Your task to perform on an android device: check google app version Image 0: 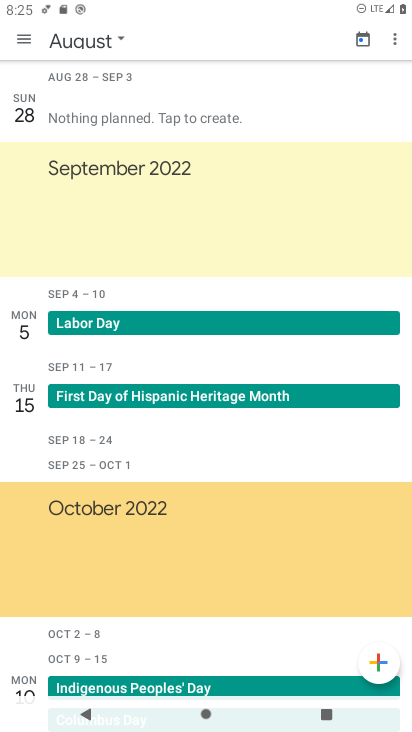
Step 0: press home button
Your task to perform on an android device: check google app version Image 1: 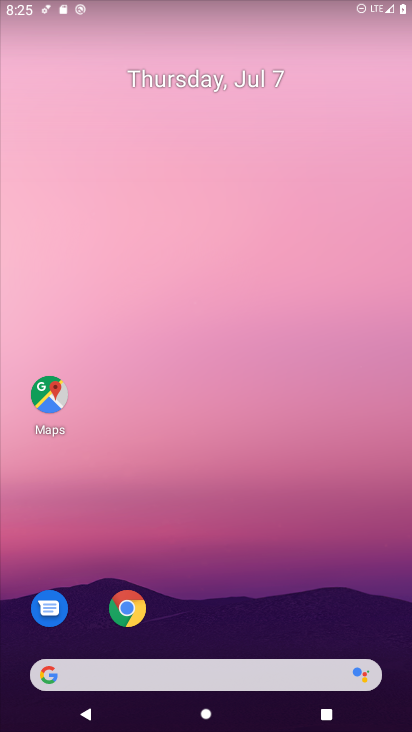
Step 1: click (128, 608)
Your task to perform on an android device: check google app version Image 2: 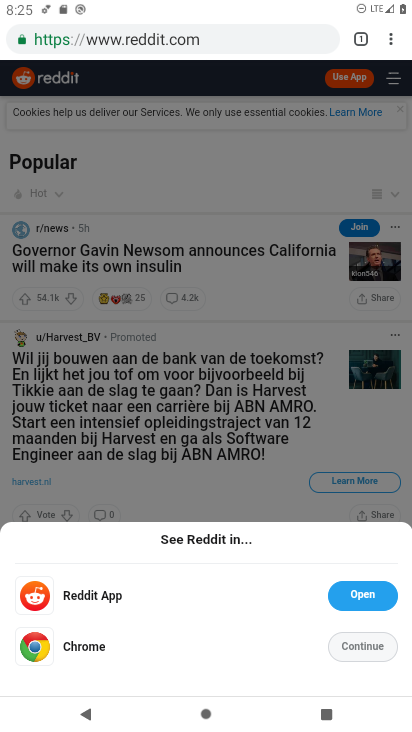
Step 2: click (391, 44)
Your task to perform on an android device: check google app version Image 3: 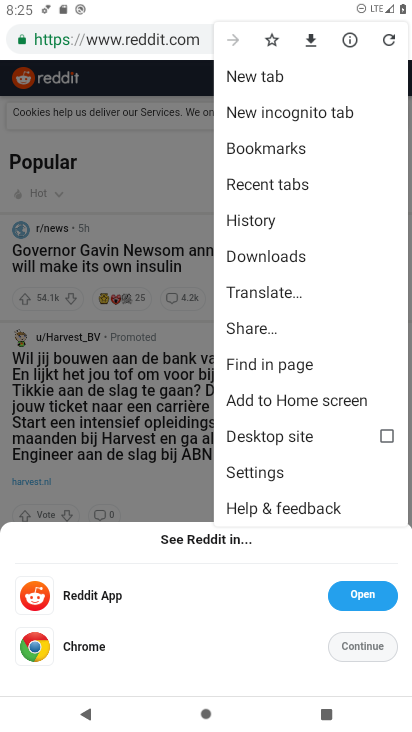
Step 3: click (261, 477)
Your task to perform on an android device: check google app version Image 4: 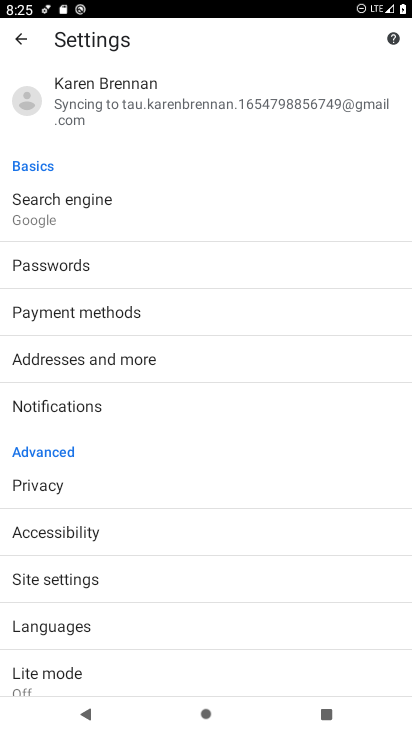
Step 4: drag from (203, 676) to (215, 327)
Your task to perform on an android device: check google app version Image 5: 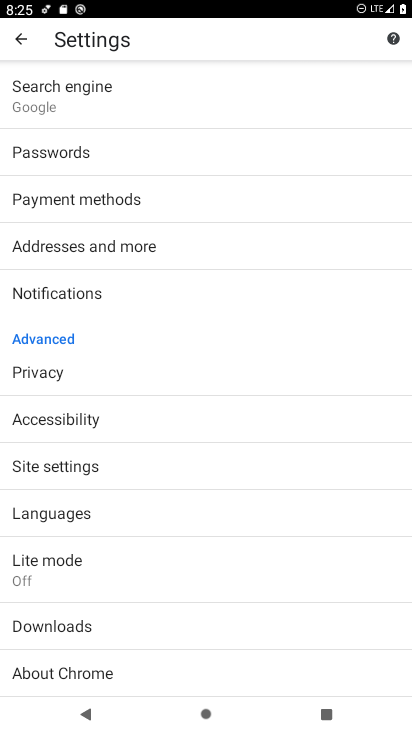
Step 5: click (64, 669)
Your task to perform on an android device: check google app version Image 6: 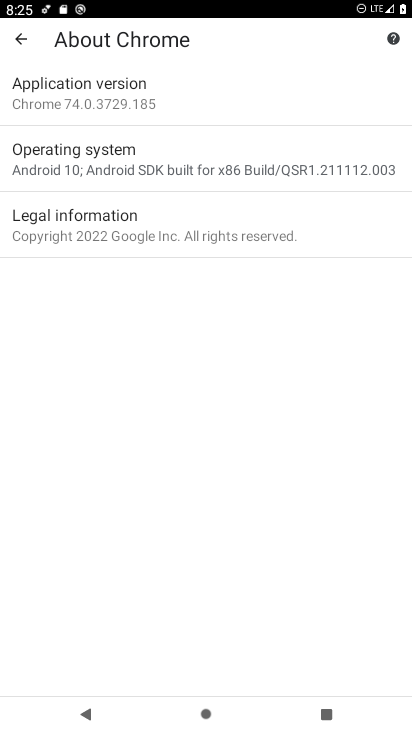
Step 6: click (41, 77)
Your task to perform on an android device: check google app version Image 7: 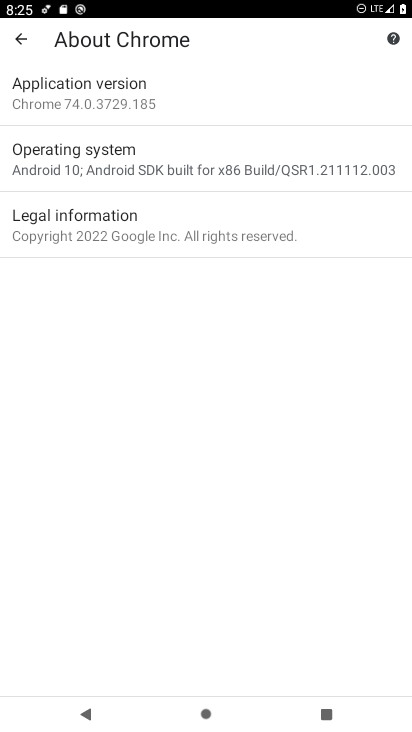
Step 7: task complete